Your task to perform on an android device: Open Google Chrome Image 0: 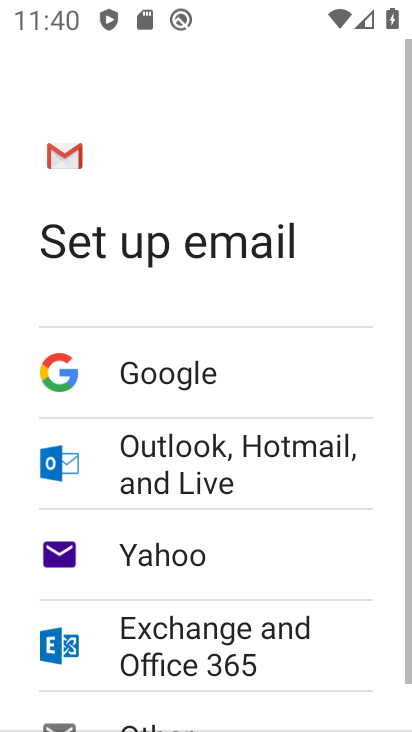
Step 0: press home button
Your task to perform on an android device: Open Google Chrome Image 1: 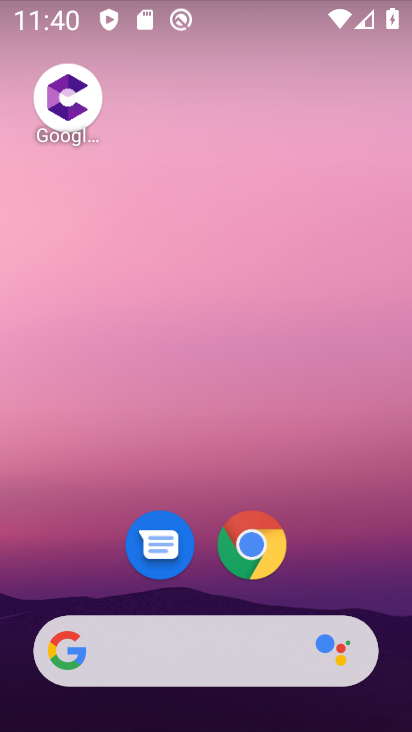
Step 1: drag from (325, 521) to (314, 206)
Your task to perform on an android device: Open Google Chrome Image 2: 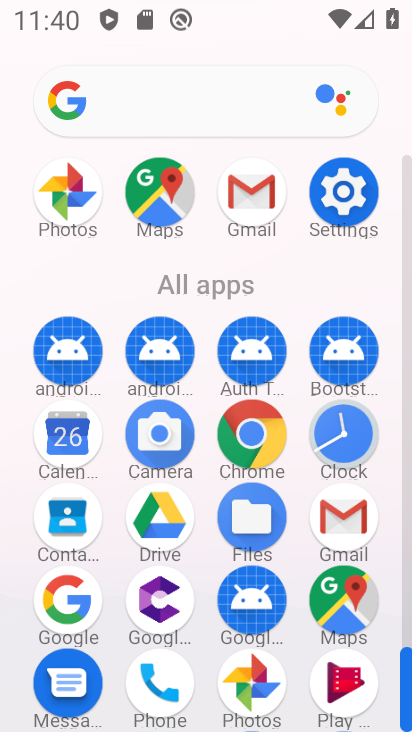
Step 2: click (57, 599)
Your task to perform on an android device: Open Google Chrome Image 3: 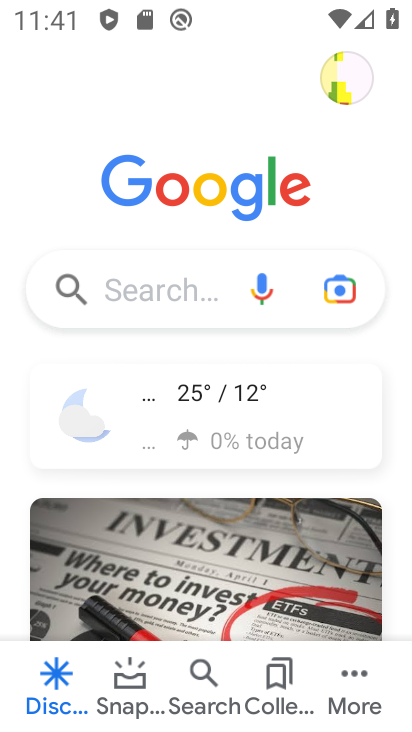
Step 3: task complete